Your task to perform on an android device: remove spam from my inbox in the gmail app Image 0: 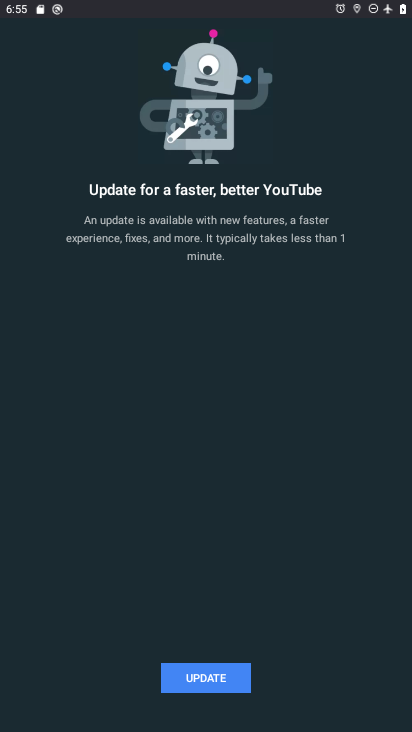
Step 0: press home button
Your task to perform on an android device: remove spam from my inbox in the gmail app Image 1: 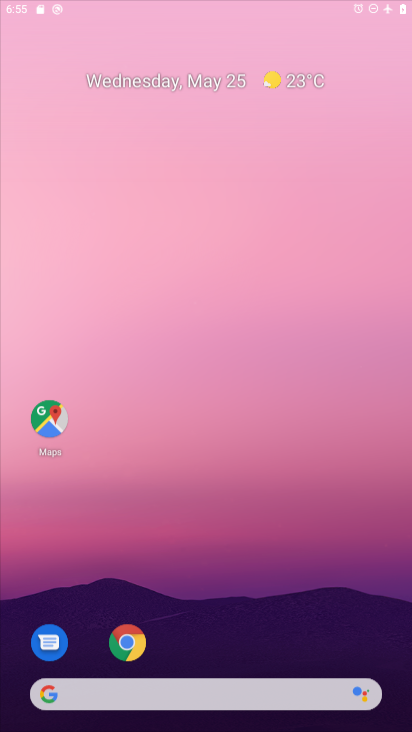
Step 1: drag from (383, 648) to (239, 89)
Your task to perform on an android device: remove spam from my inbox in the gmail app Image 2: 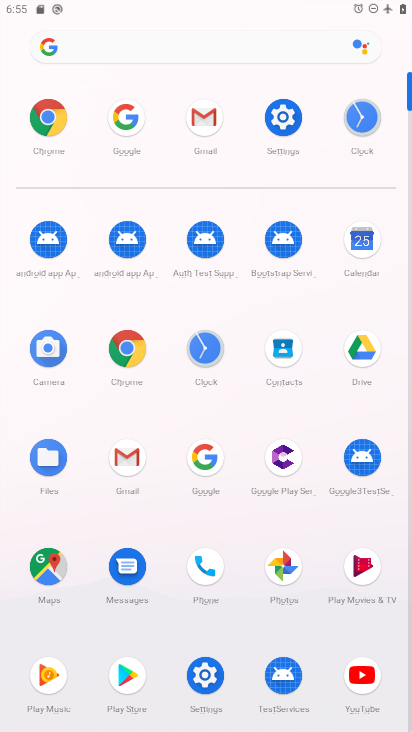
Step 2: click (209, 123)
Your task to perform on an android device: remove spam from my inbox in the gmail app Image 3: 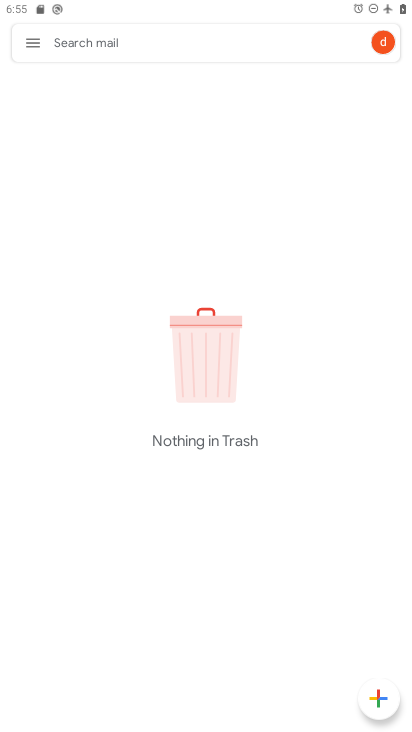
Step 3: click (34, 42)
Your task to perform on an android device: remove spam from my inbox in the gmail app Image 4: 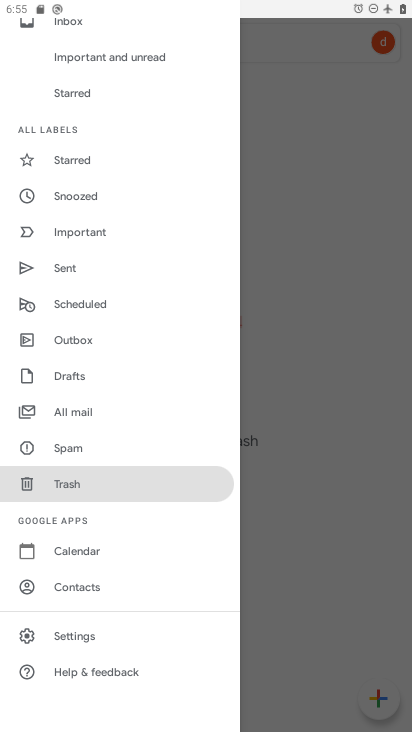
Step 4: click (58, 441)
Your task to perform on an android device: remove spam from my inbox in the gmail app Image 5: 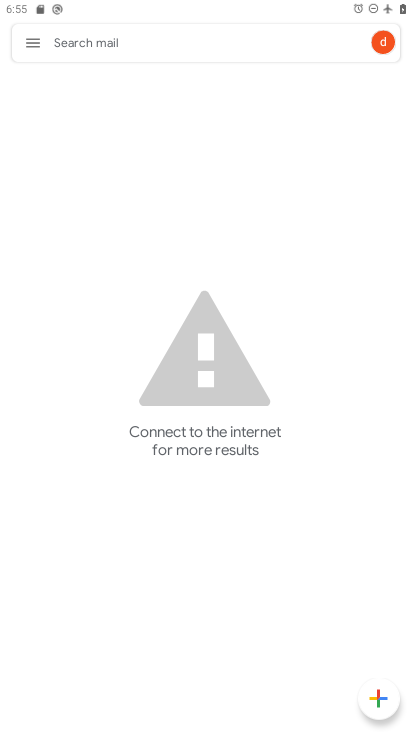
Step 5: task complete